Your task to perform on an android device: turn on wifi Image 0: 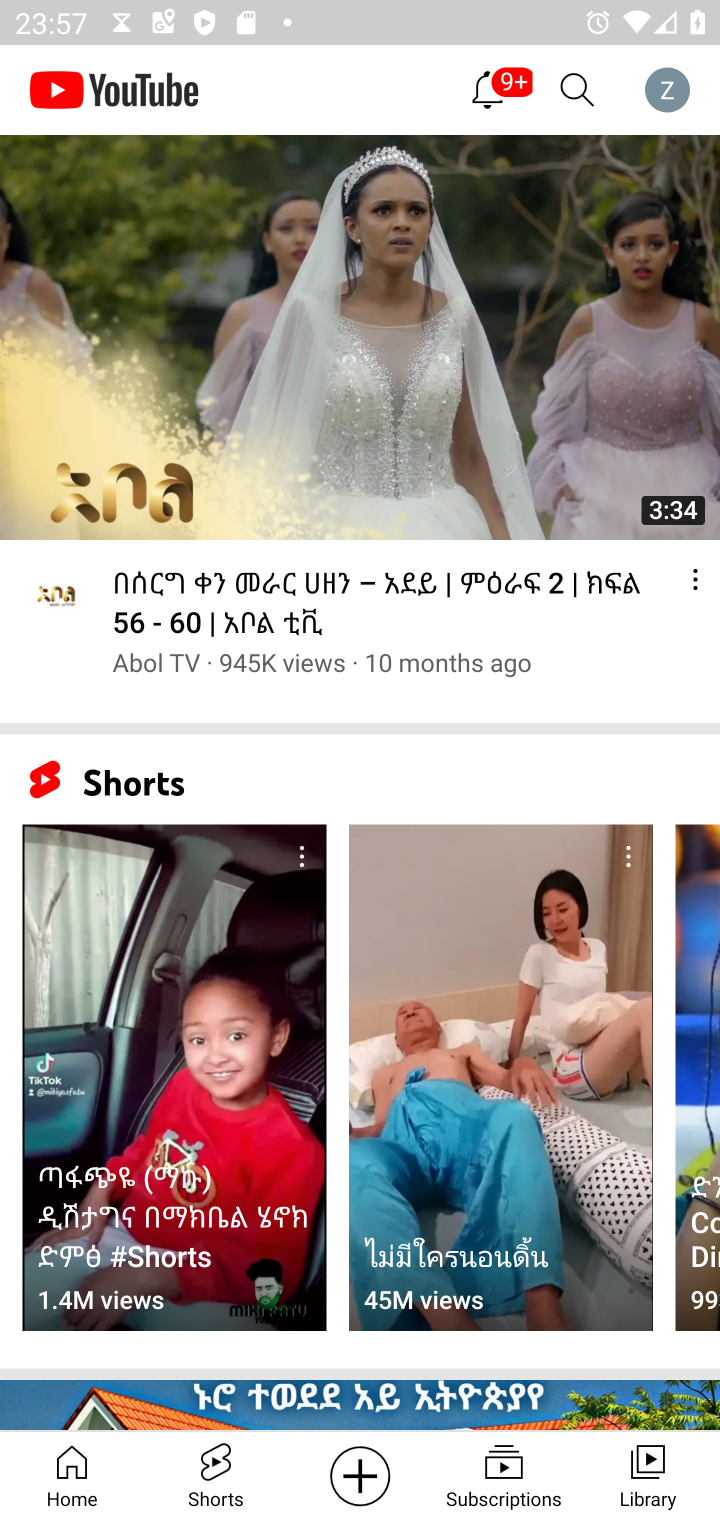
Step 0: press home button
Your task to perform on an android device: turn on wifi Image 1: 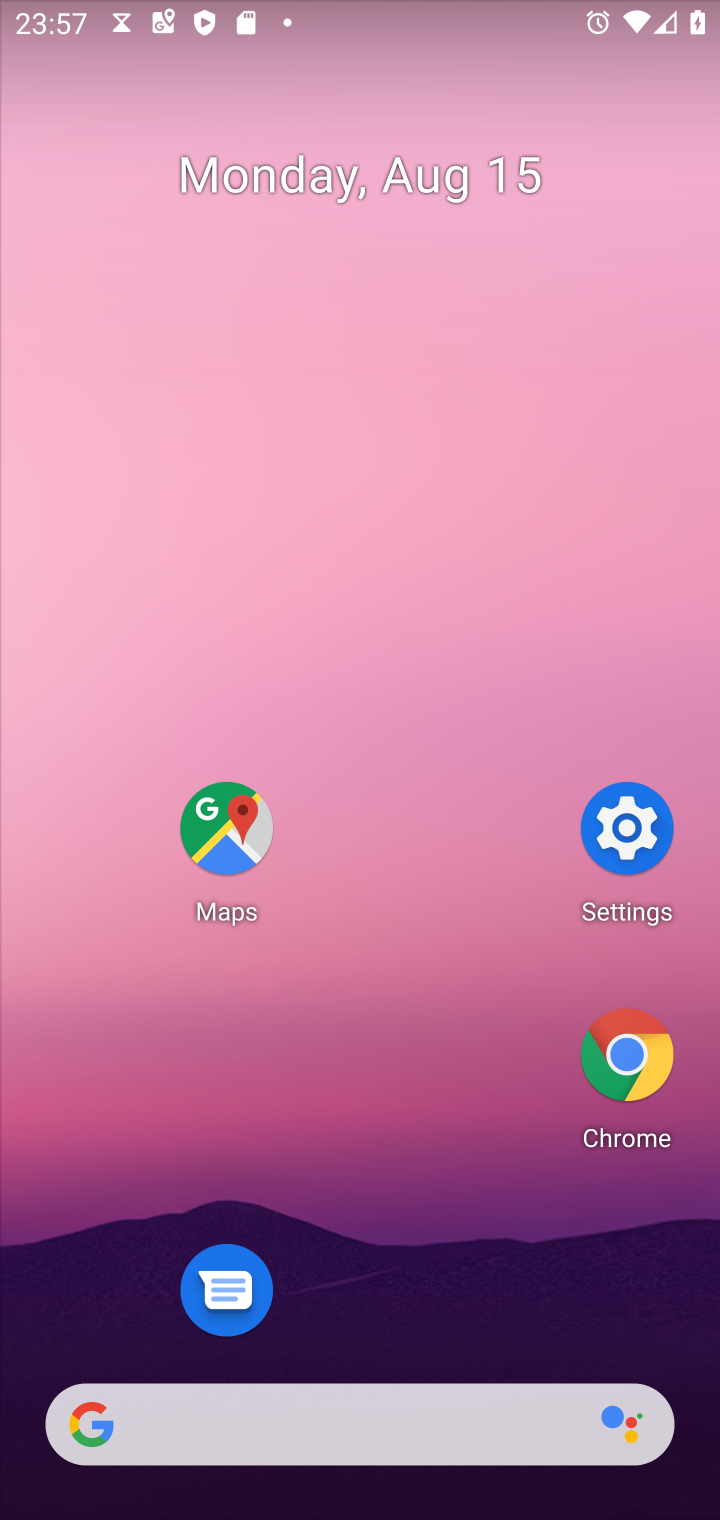
Step 1: click (641, 825)
Your task to perform on an android device: turn on wifi Image 2: 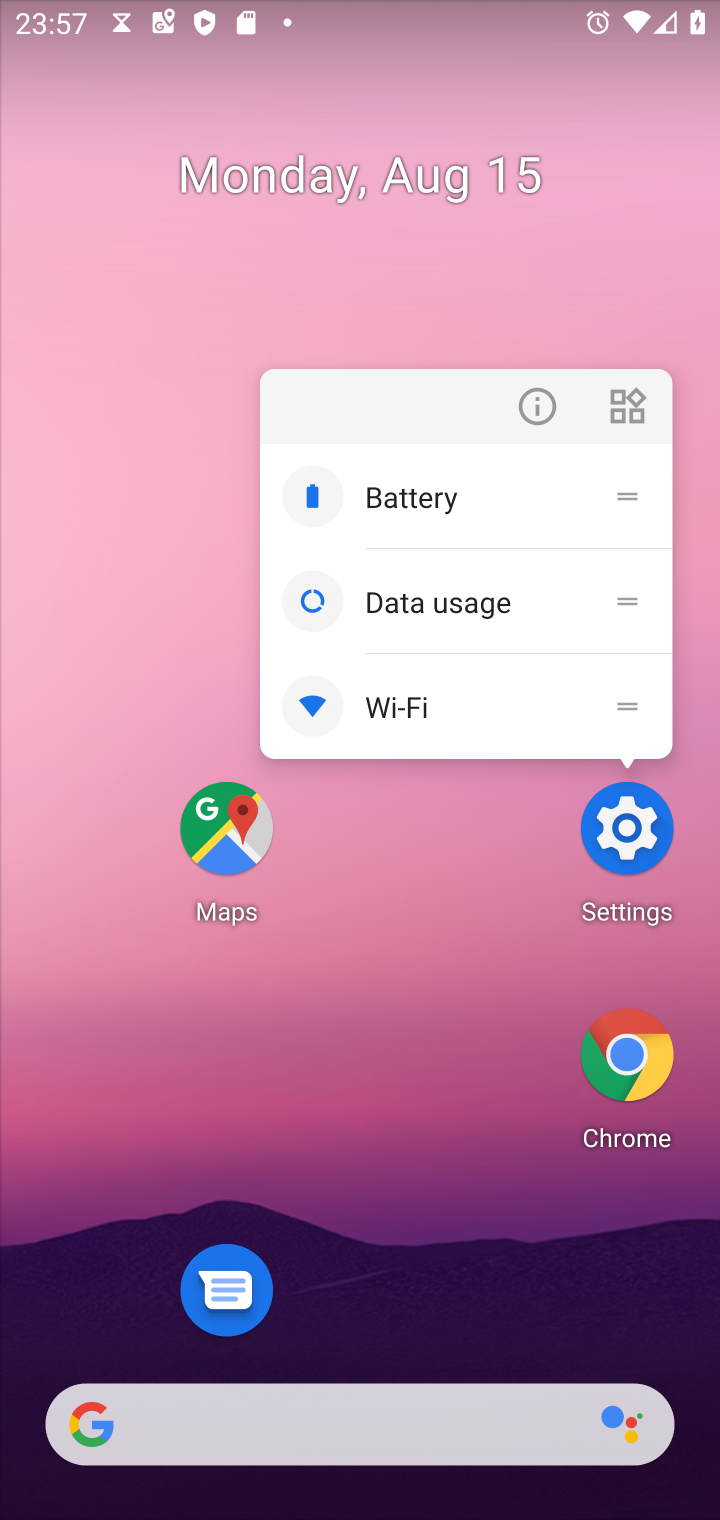
Step 2: click (632, 836)
Your task to perform on an android device: turn on wifi Image 3: 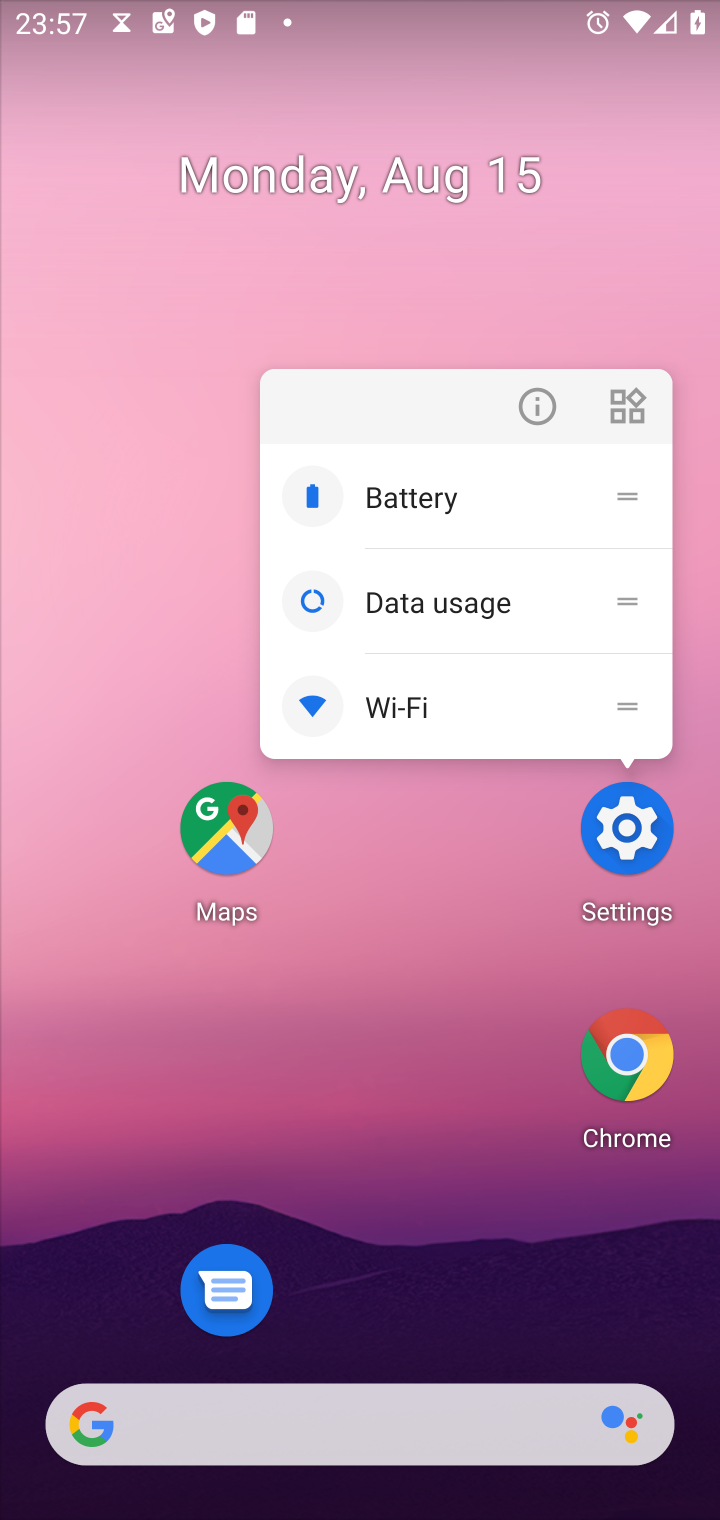
Step 3: click (632, 840)
Your task to perform on an android device: turn on wifi Image 4: 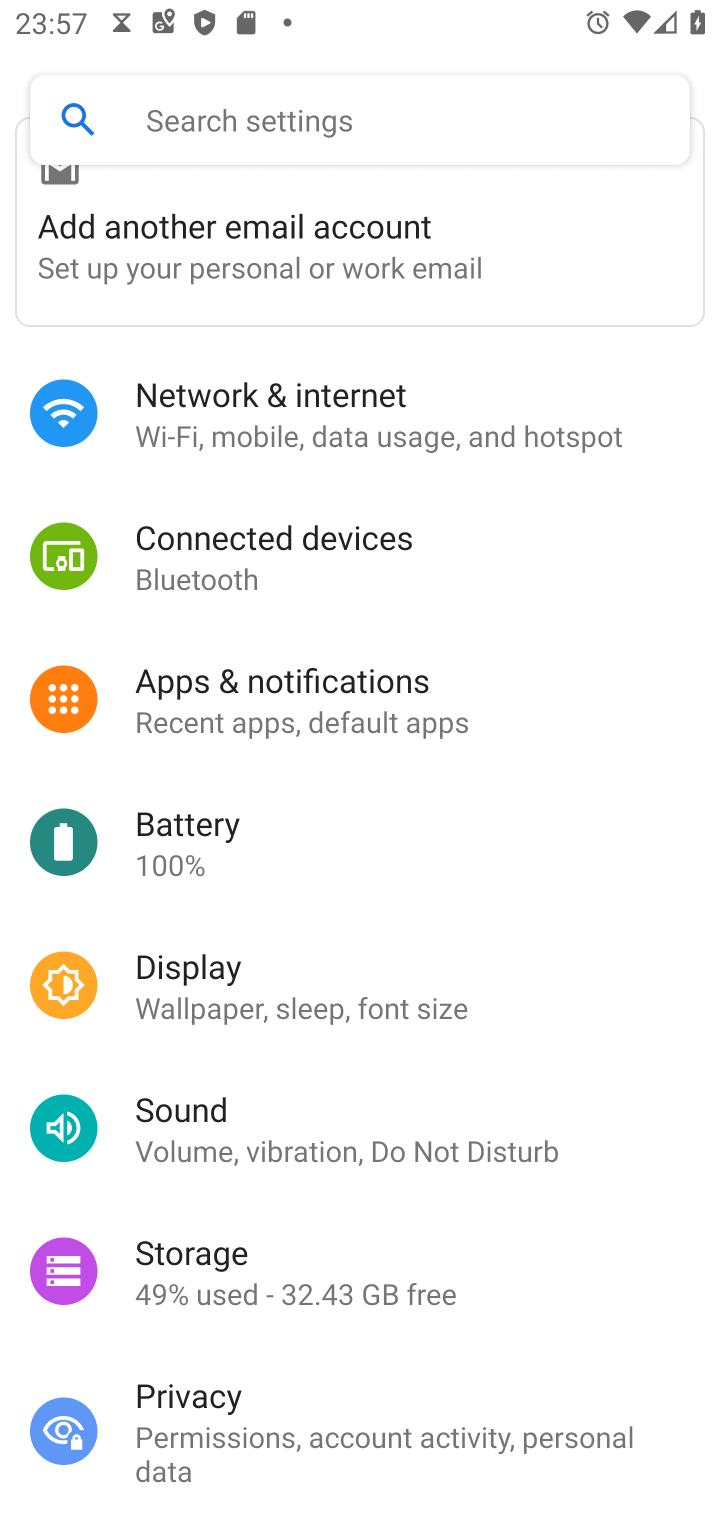
Step 4: click (369, 387)
Your task to perform on an android device: turn on wifi Image 5: 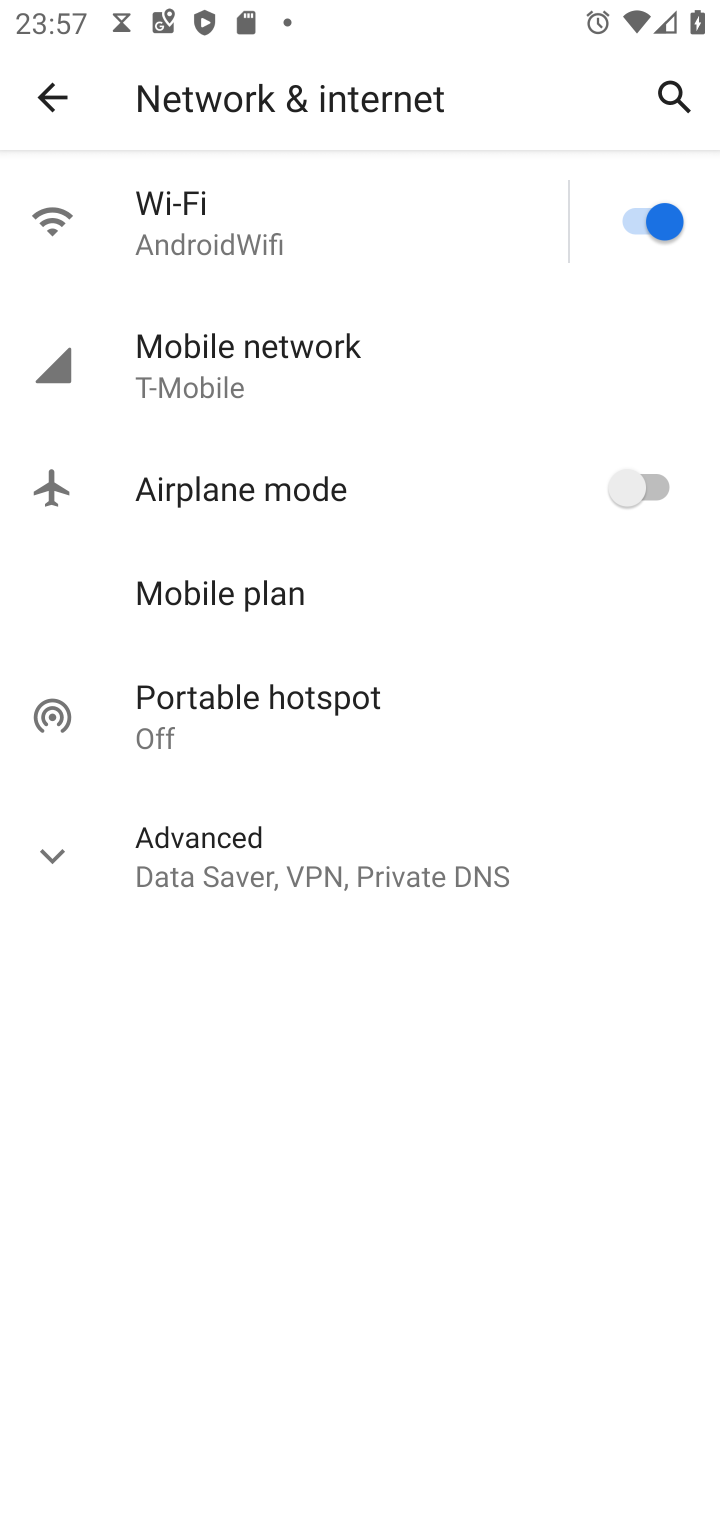
Step 5: click (135, 235)
Your task to perform on an android device: turn on wifi Image 6: 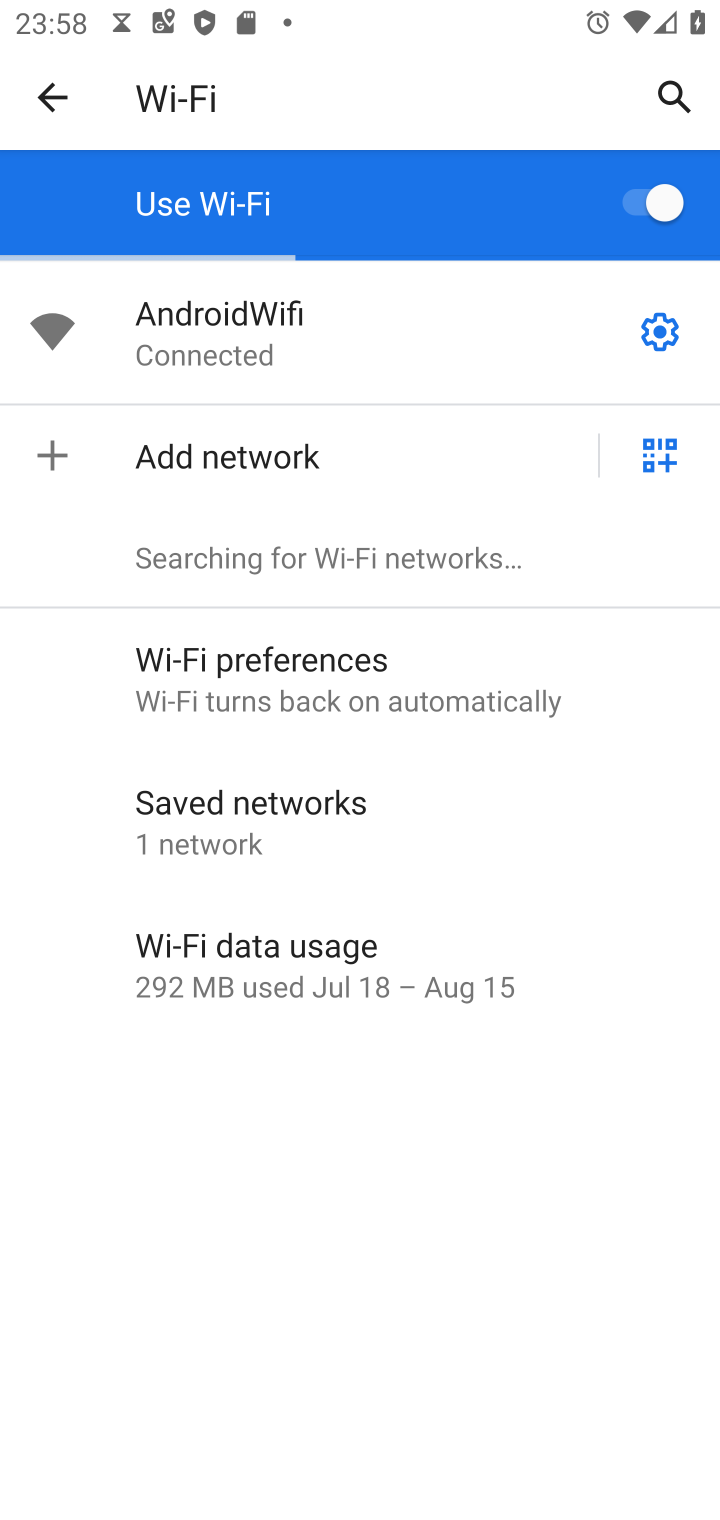
Step 6: task complete